Your task to perform on an android device: uninstall "Mercado Libre" Image 0: 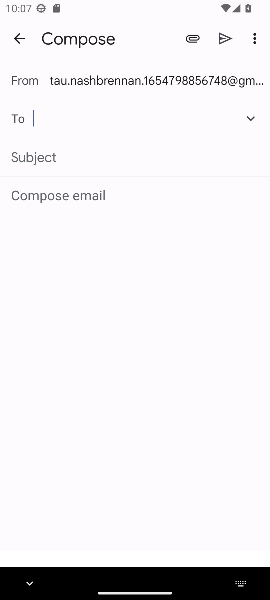
Step 0: press home button
Your task to perform on an android device: uninstall "Mercado Libre" Image 1: 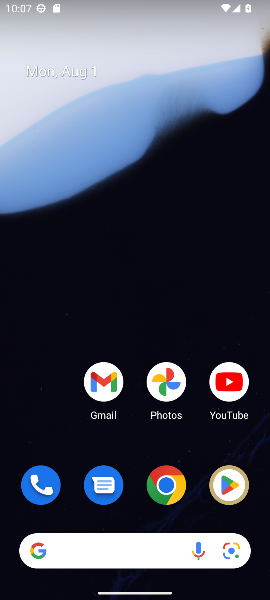
Step 1: drag from (120, 541) to (156, 2)
Your task to perform on an android device: uninstall "Mercado Libre" Image 2: 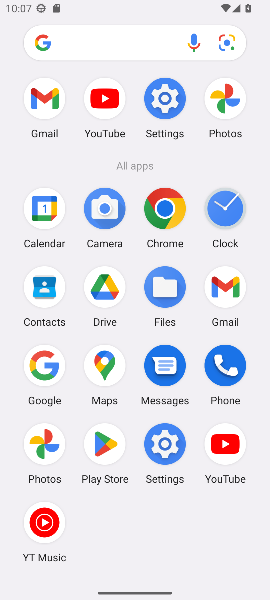
Step 2: click (108, 438)
Your task to perform on an android device: uninstall "Mercado Libre" Image 3: 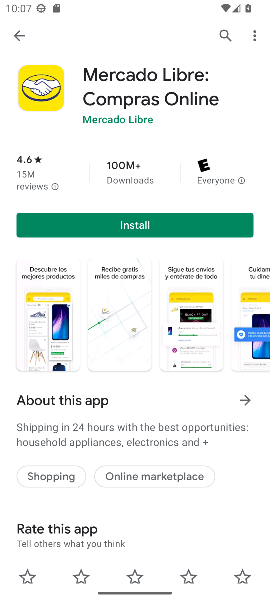
Step 3: task complete